Your task to perform on an android device: Open Android settings Image 0: 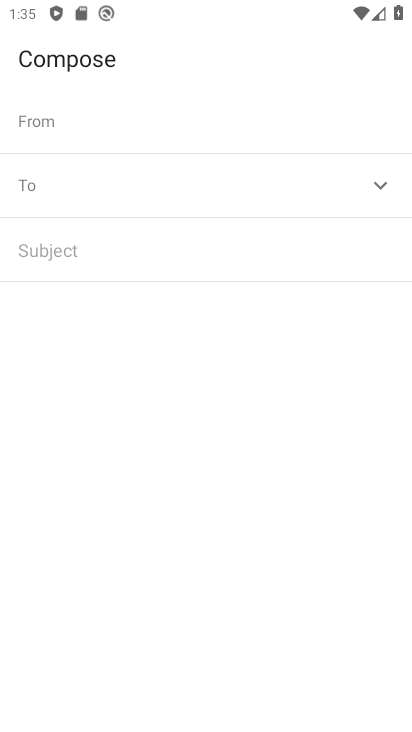
Step 0: drag from (280, 552) to (277, 316)
Your task to perform on an android device: Open Android settings Image 1: 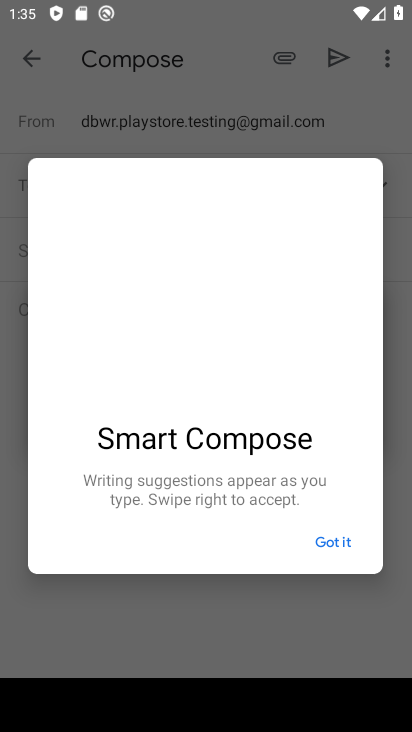
Step 1: press back button
Your task to perform on an android device: Open Android settings Image 2: 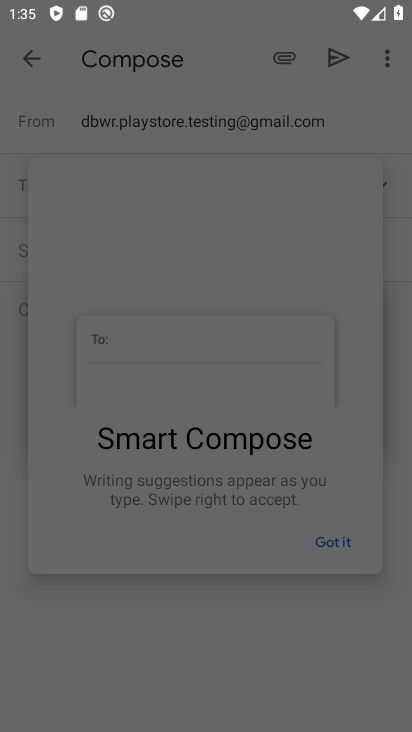
Step 2: press back button
Your task to perform on an android device: Open Android settings Image 3: 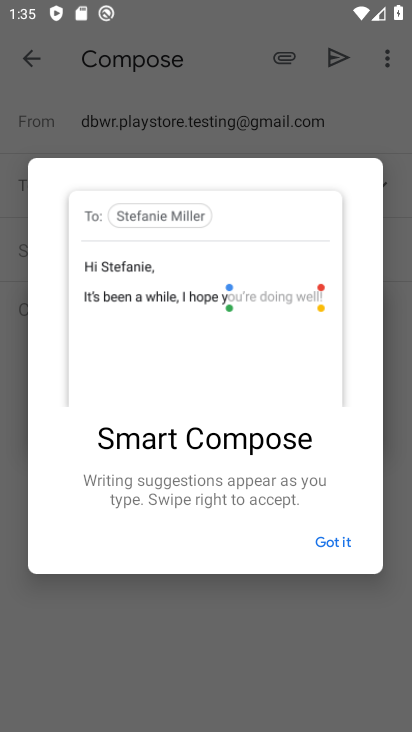
Step 3: press back button
Your task to perform on an android device: Open Android settings Image 4: 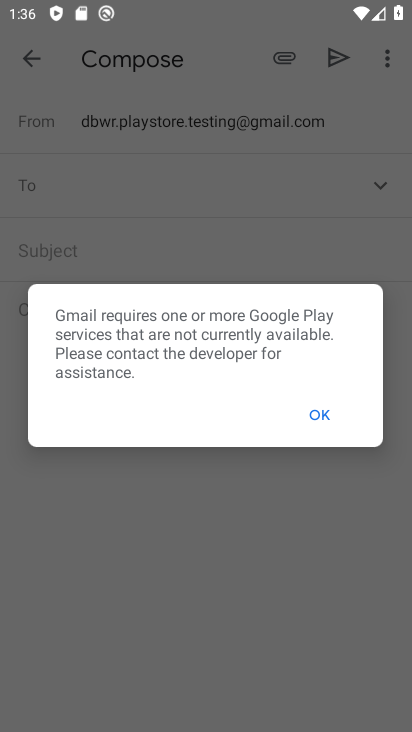
Step 4: press home button
Your task to perform on an android device: Open Android settings Image 5: 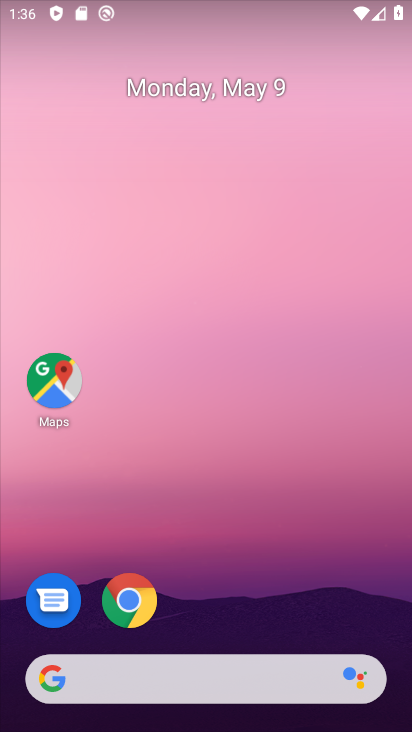
Step 5: drag from (205, 443) to (142, 0)
Your task to perform on an android device: Open Android settings Image 6: 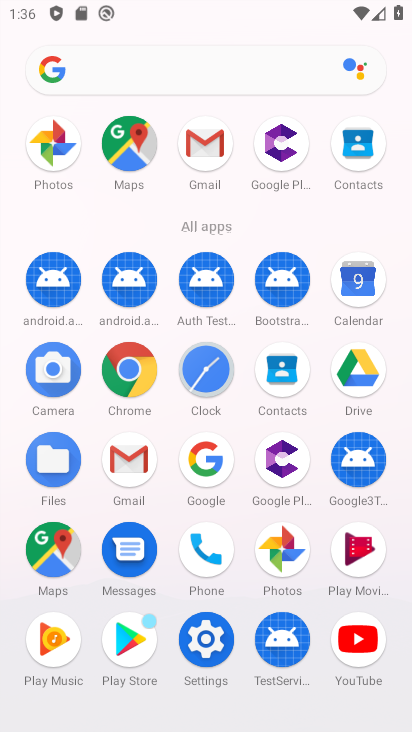
Step 6: drag from (13, 560) to (1, 237)
Your task to perform on an android device: Open Android settings Image 7: 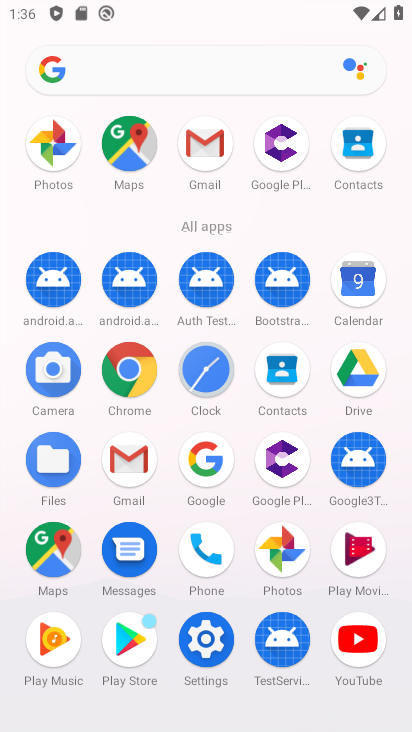
Step 7: click (197, 635)
Your task to perform on an android device: Open Android settings Image 8: 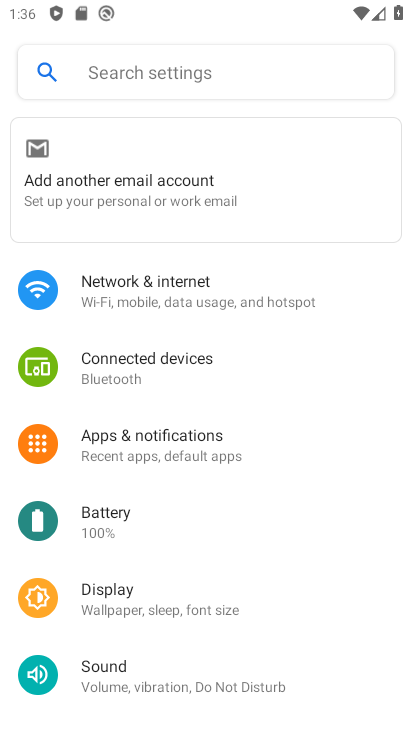
Step 8: task complete